Your task to perform on an android device: Search for pizza restaurants on Maps Image 0: 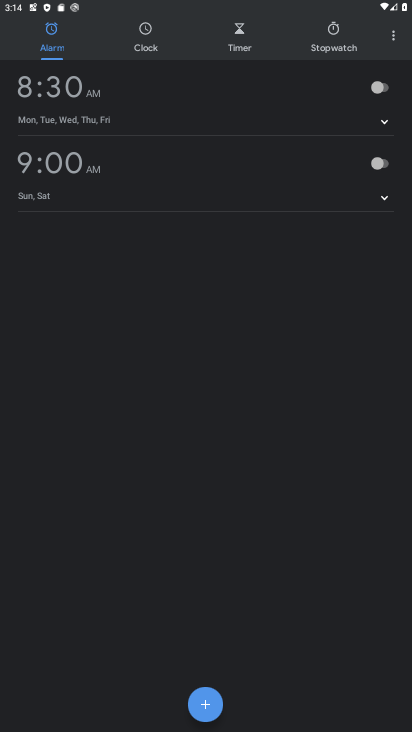
Step 0: press home button
Your task to perform on an android device: Search for pizza restaurants on Maps Image 1: 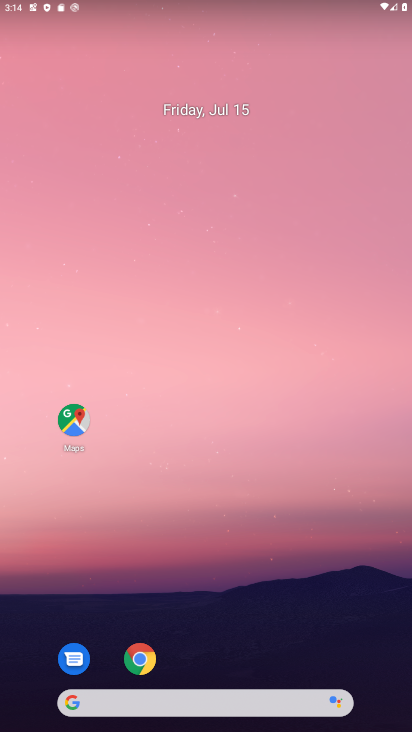
Step 1: click (71, 432)
Your task to perform on an android device: Search for pizza restaurants on Maps Image 2: 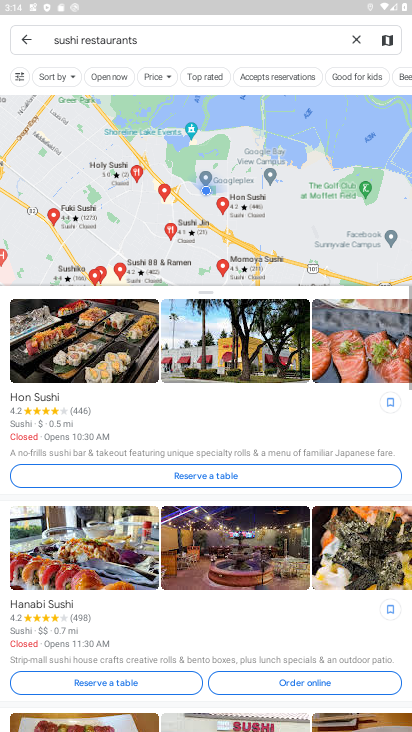
Step 2: click (169, 45)
Your task to perform on an android device: Search for pizza restaurants on Maps Image 3: 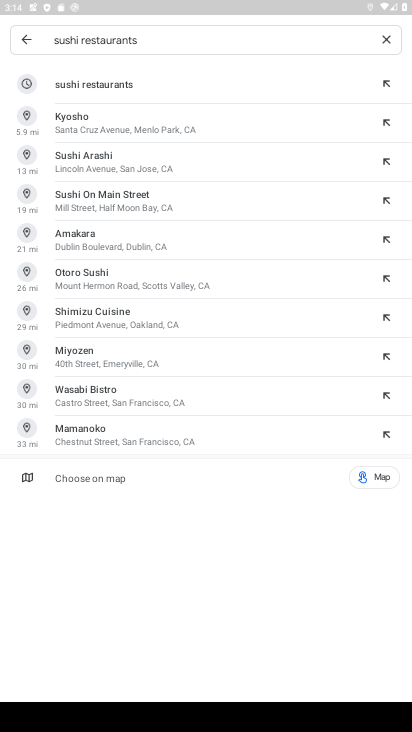
Step 3: click (378, 41)
Your task to perform on an android device: Search for pizza restaurants on Maps Image 4: 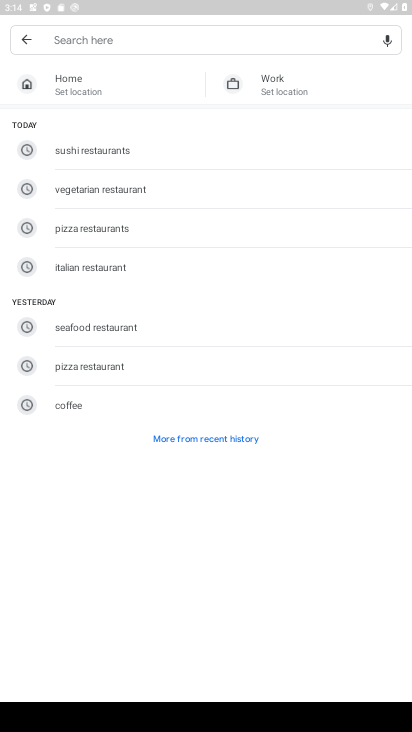
Step 4: click (75, 230)
Your task to perform on an android device: Search for pizza restaurants on Maps Image 5: 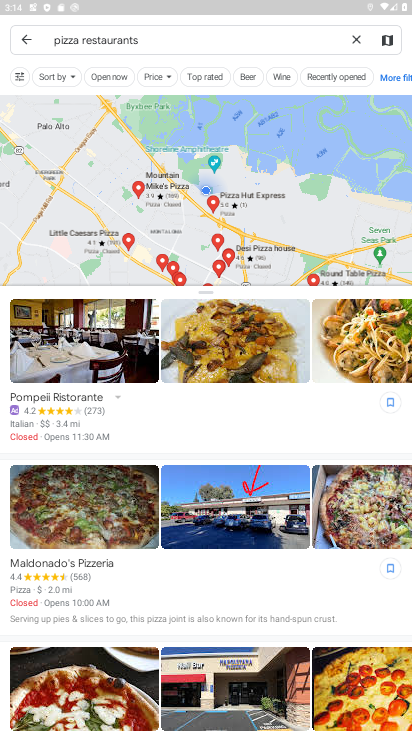
Step 5: task complete